Your task to perform on an android device: Open the calendar app, open the side menu, and click the "Day" option Image 0: 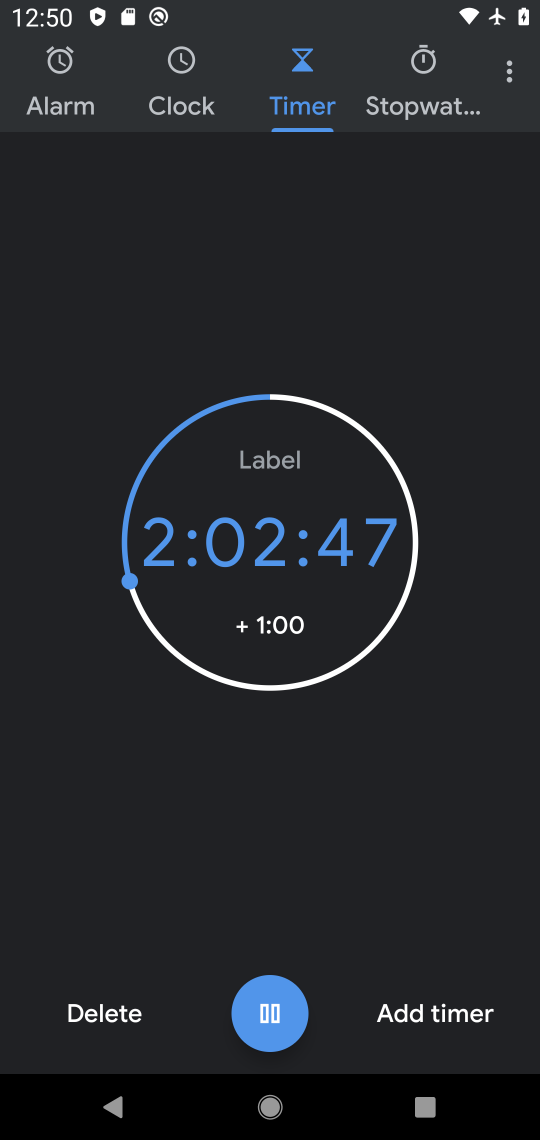
Step 0: press home button
Your task to perform on an android device: Open the calendar app, open the side menu, and click the "Day" option Image 1: 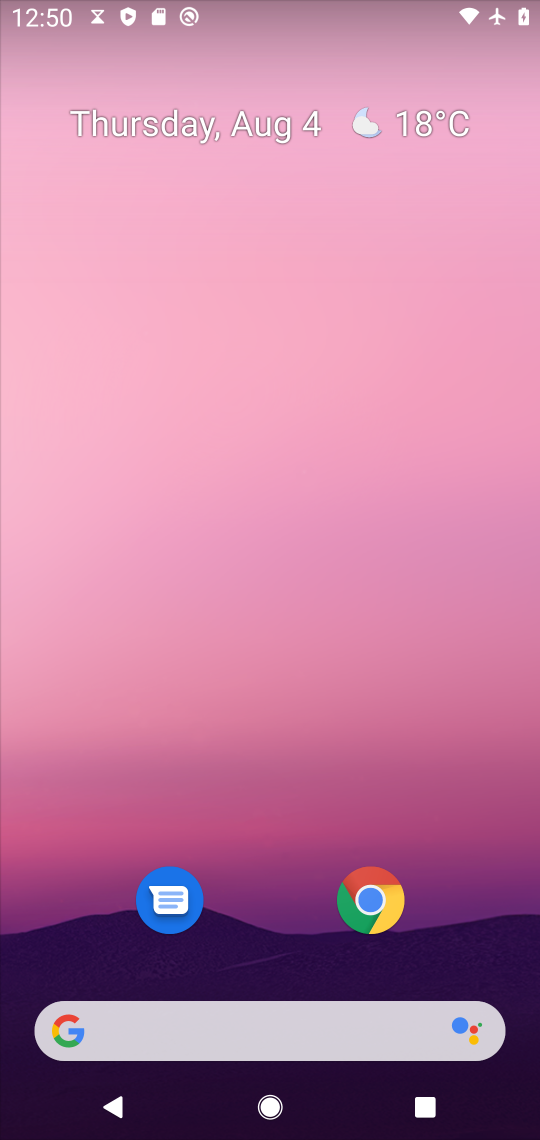
Step 1: drag from (251, 746) to (277, 247)
Your task to perform on an android device: Open the calendar app, open the side menu, and click the "Day" option Image 2: 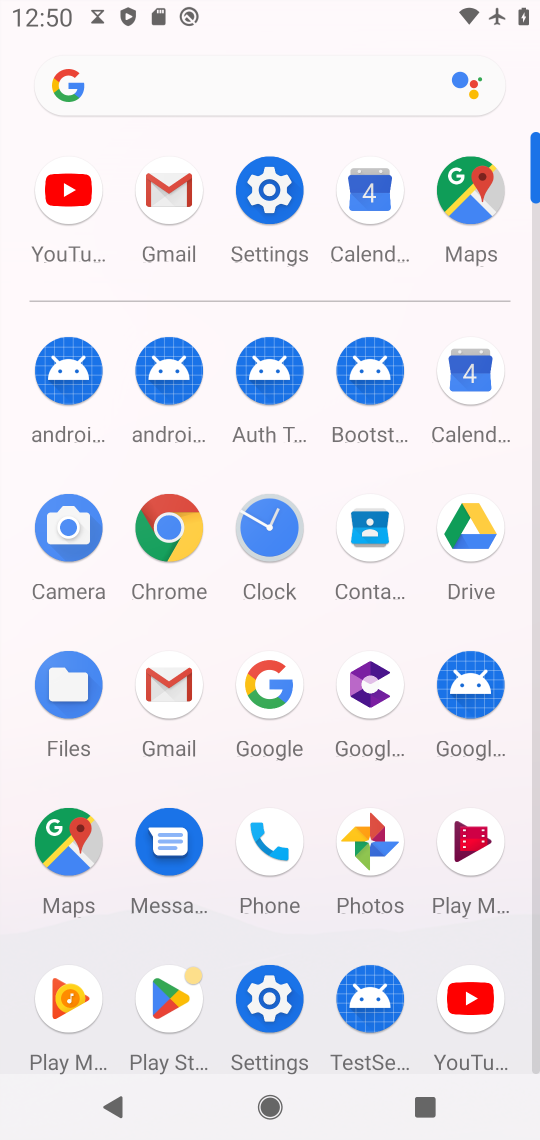
Step 2: click (475, 376)
Your task to perform on an android device: Open the calendar app, open the side menu, and click the "Day" option Image 3: 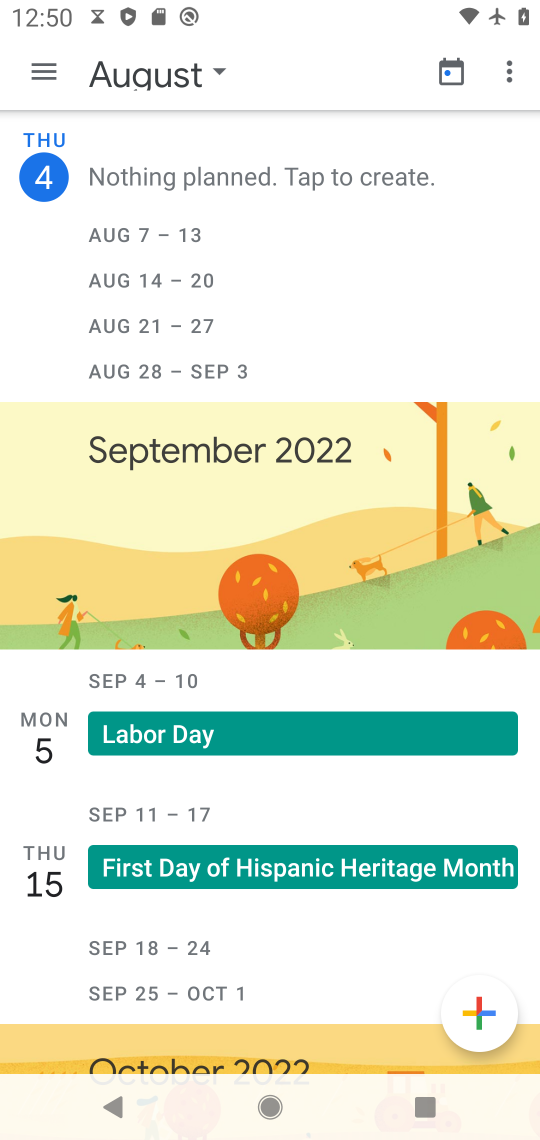
Step 3: click (43, 71)
Your task to perform on an android device: Open the calendar app, open the side menu, and click the "Day" option Image 4: 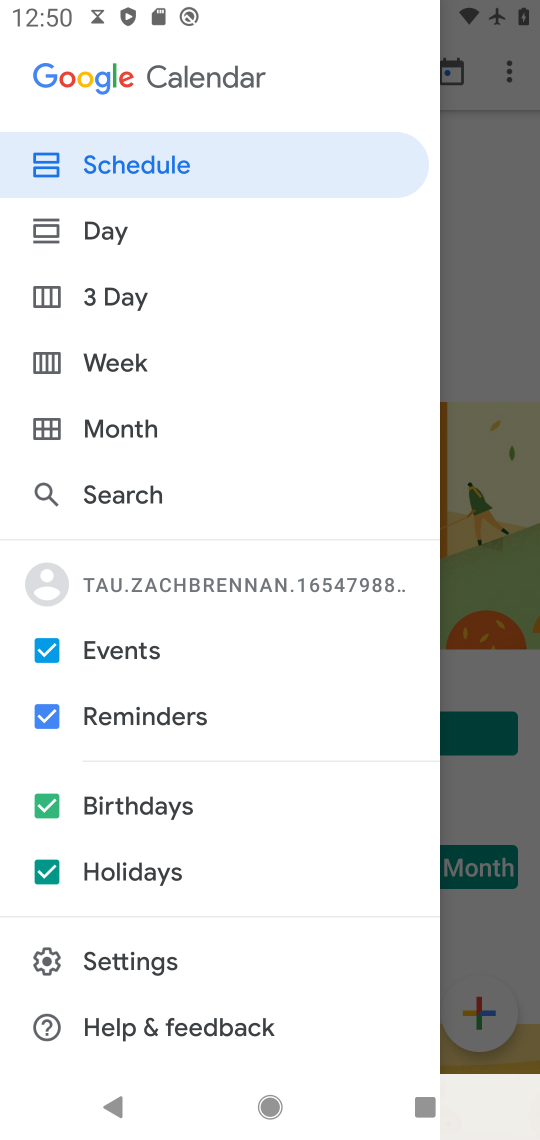
Step 4: click (99, 236)
Your task to perform on an android device: Open the calendar app, open the side menu, and click the "Day" option Image 5: 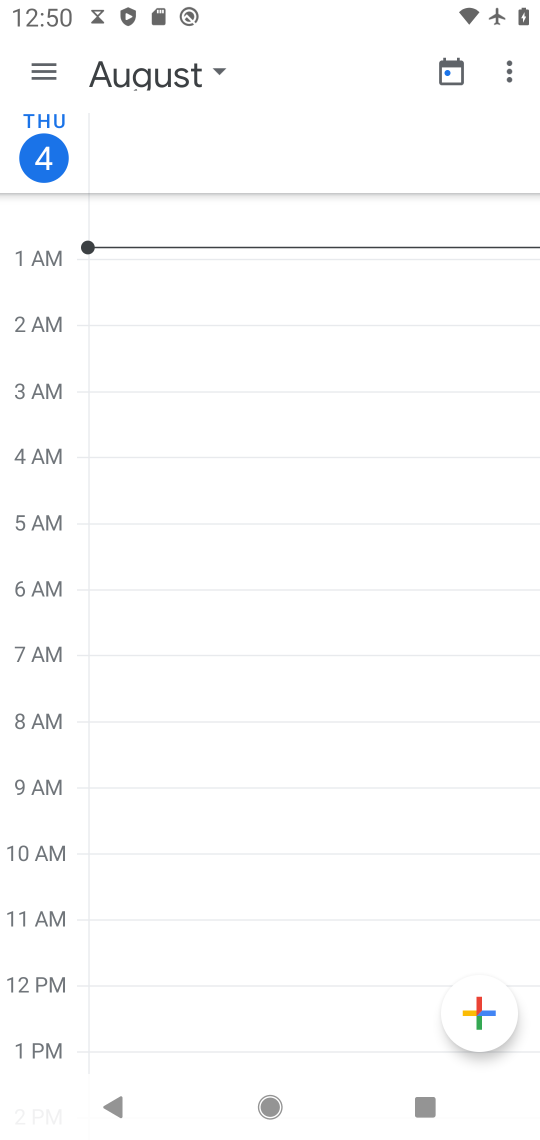
Step 5: task complete